Your task to perform on an android device: install app "Google News" Image 0: 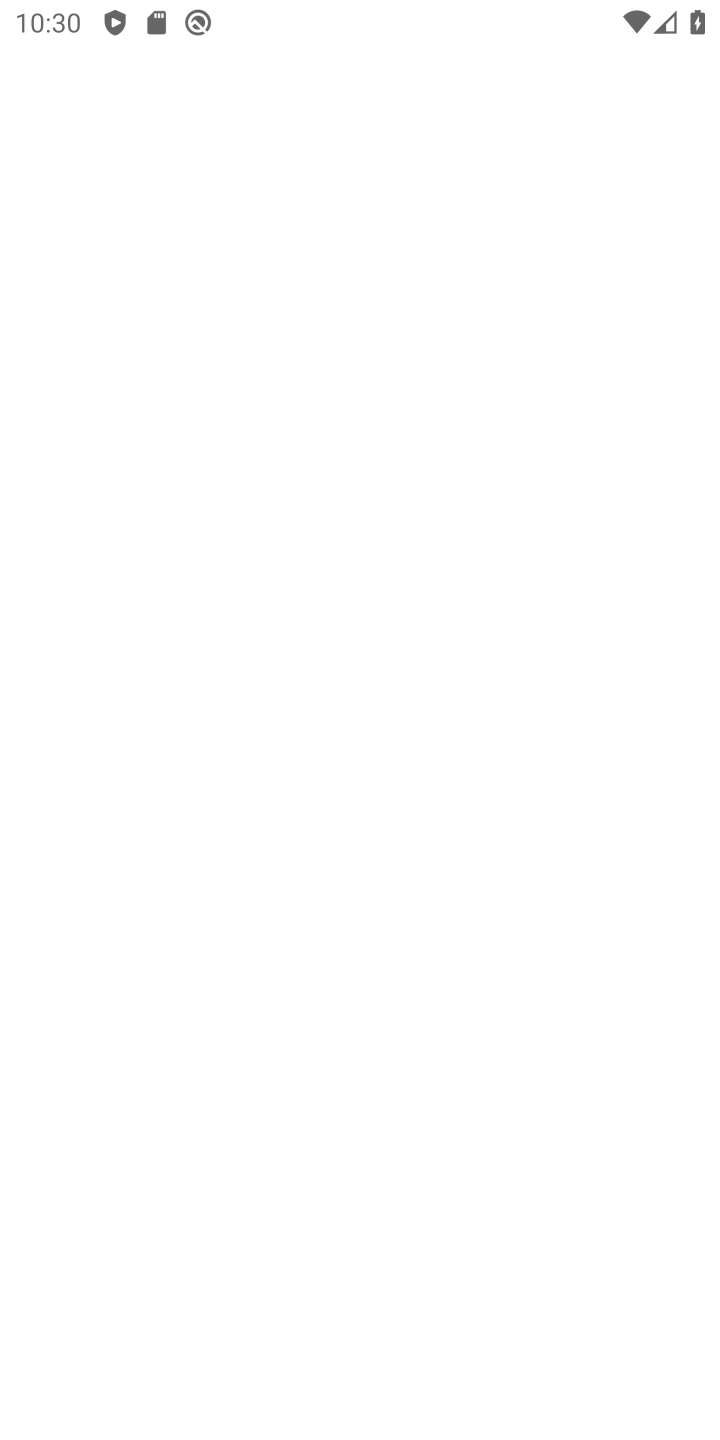
Step 0: press home button
Your task to perform on an android device: install app "Google News" Image 1: 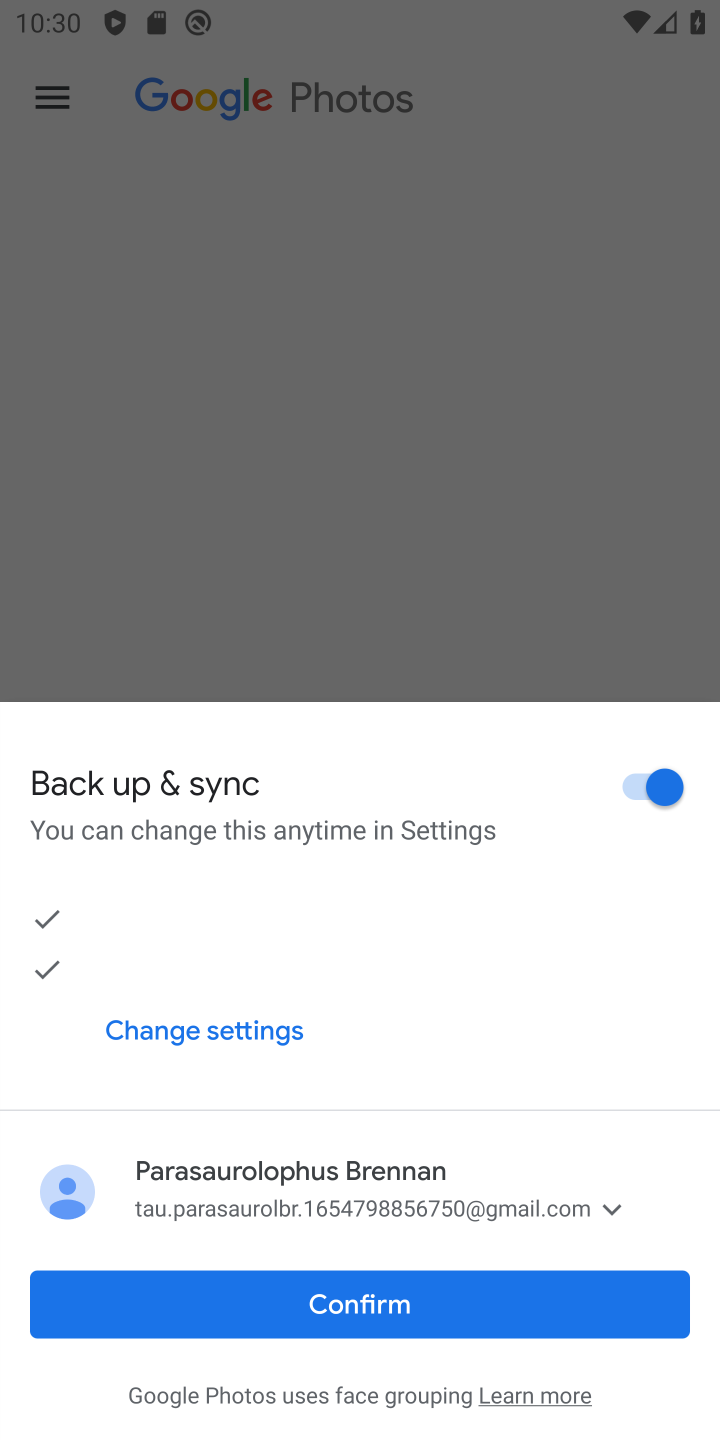
Step 1: press home button
Your task to perform on an android device: install app "Google News" Image 2: 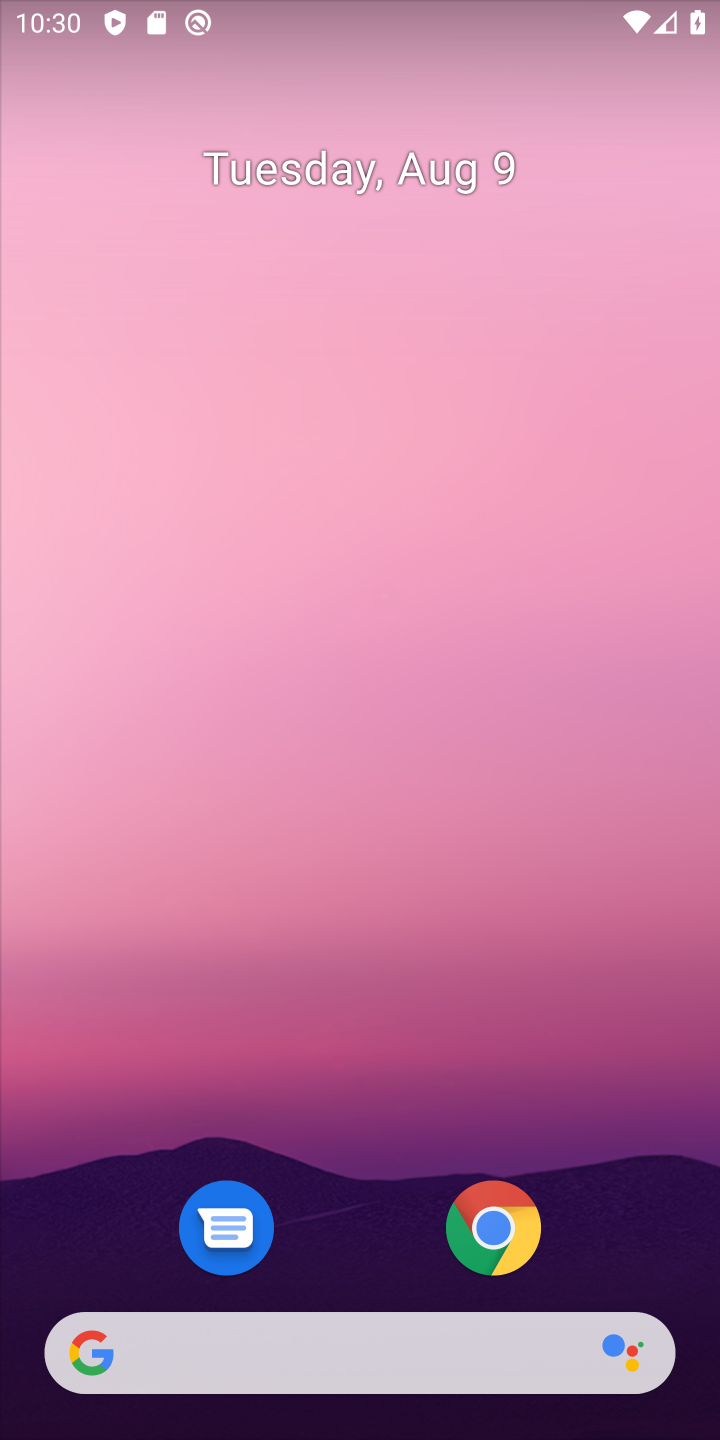
Step 2: drag from (377, 1279) to (426, 2)
Your task to perform on an android device: install app "Google News" Image 3: 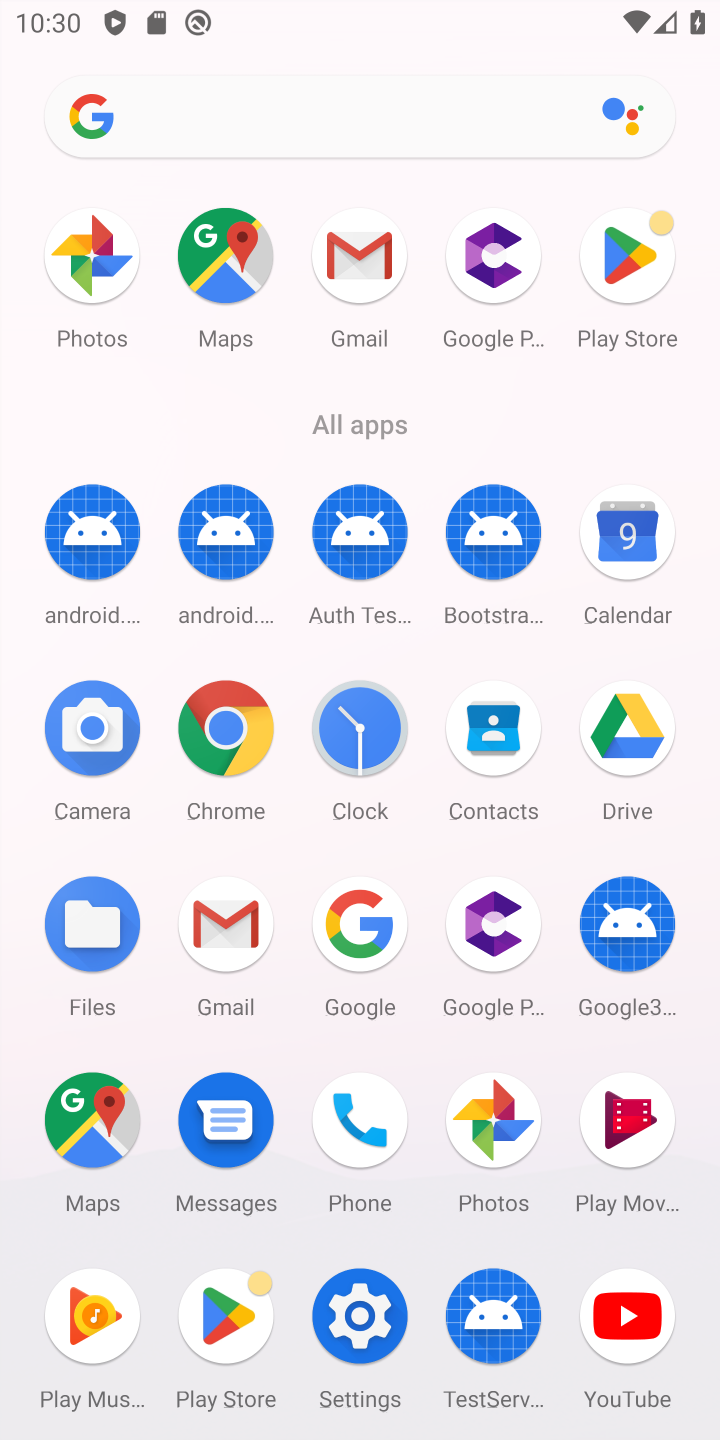
Step 3: click (629, 239)
Your task to perform on an android device: install app "Google News" Image 4: 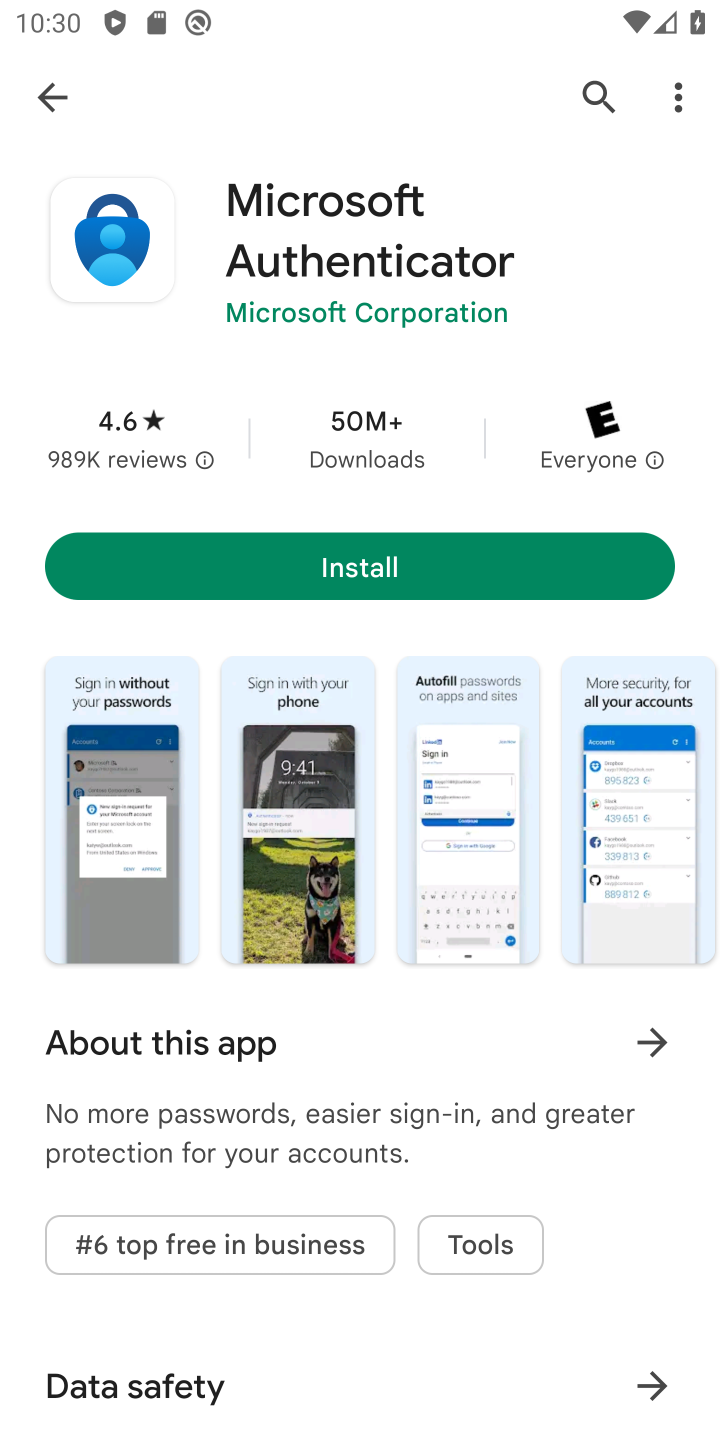
Step 4: click (588, 94)
Your task to perform on an android device: install app "Google News" Image 5: 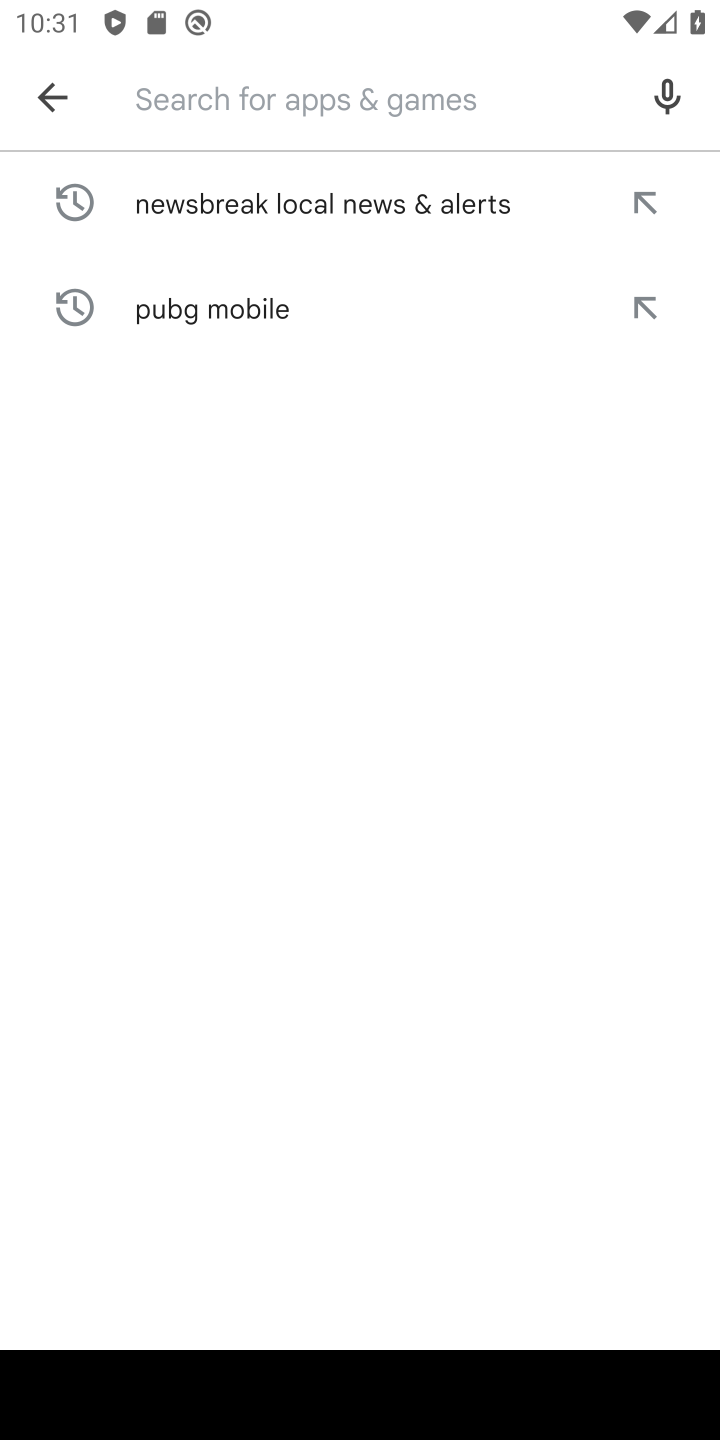
Step 5: type "google News"
Your task to perform on an android device: install app "Google News" Image 6: 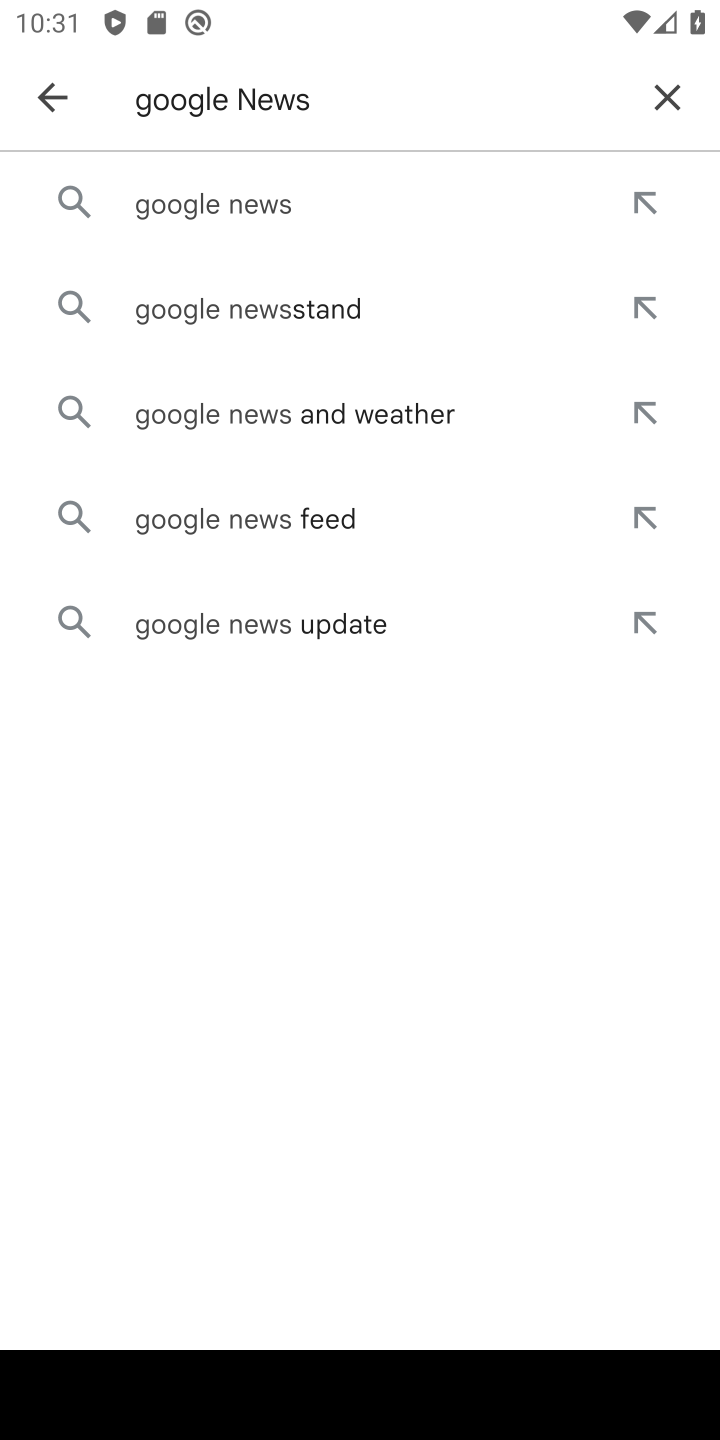
Step 6: click (194, 186)
Your task to perform on an android device: install app "Google News" Image 7: 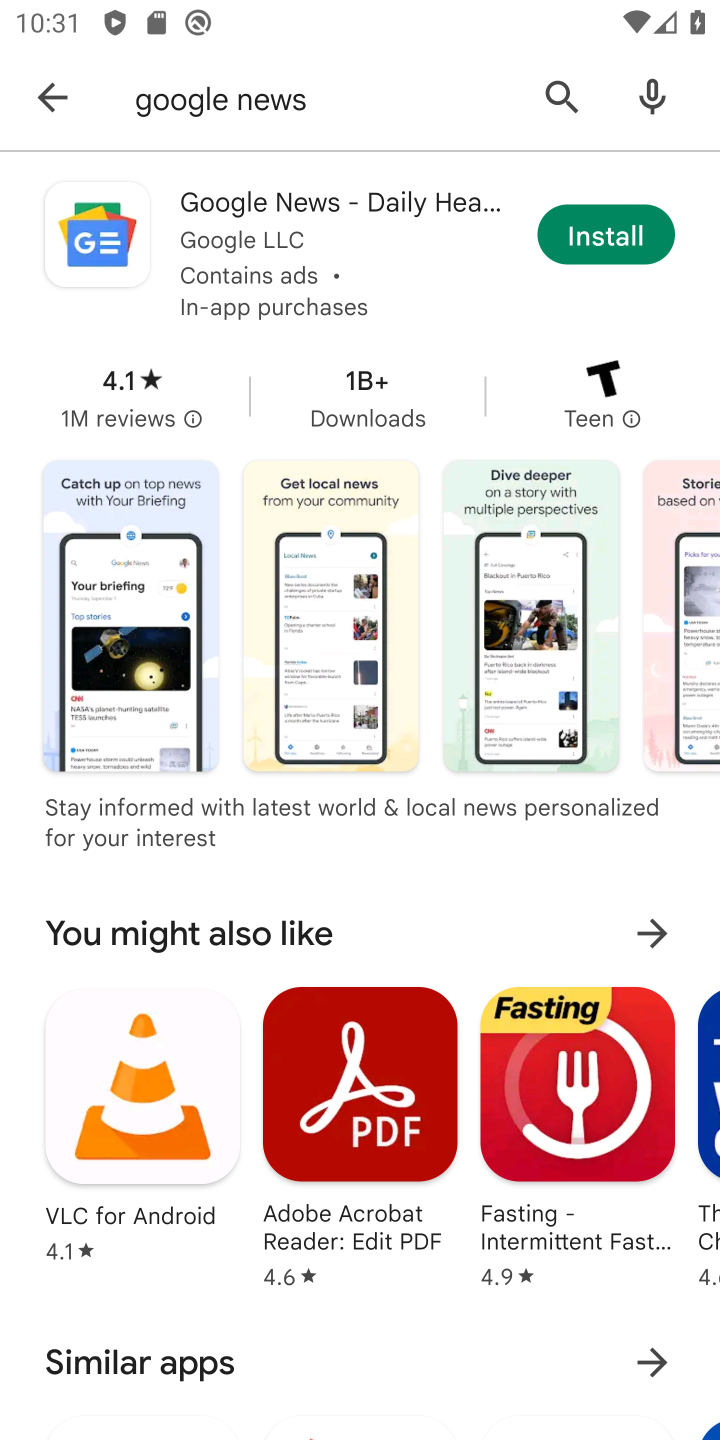
Step 7: click (629, 237)
Your task to perform on an android device: install app "Google News" Image 8: 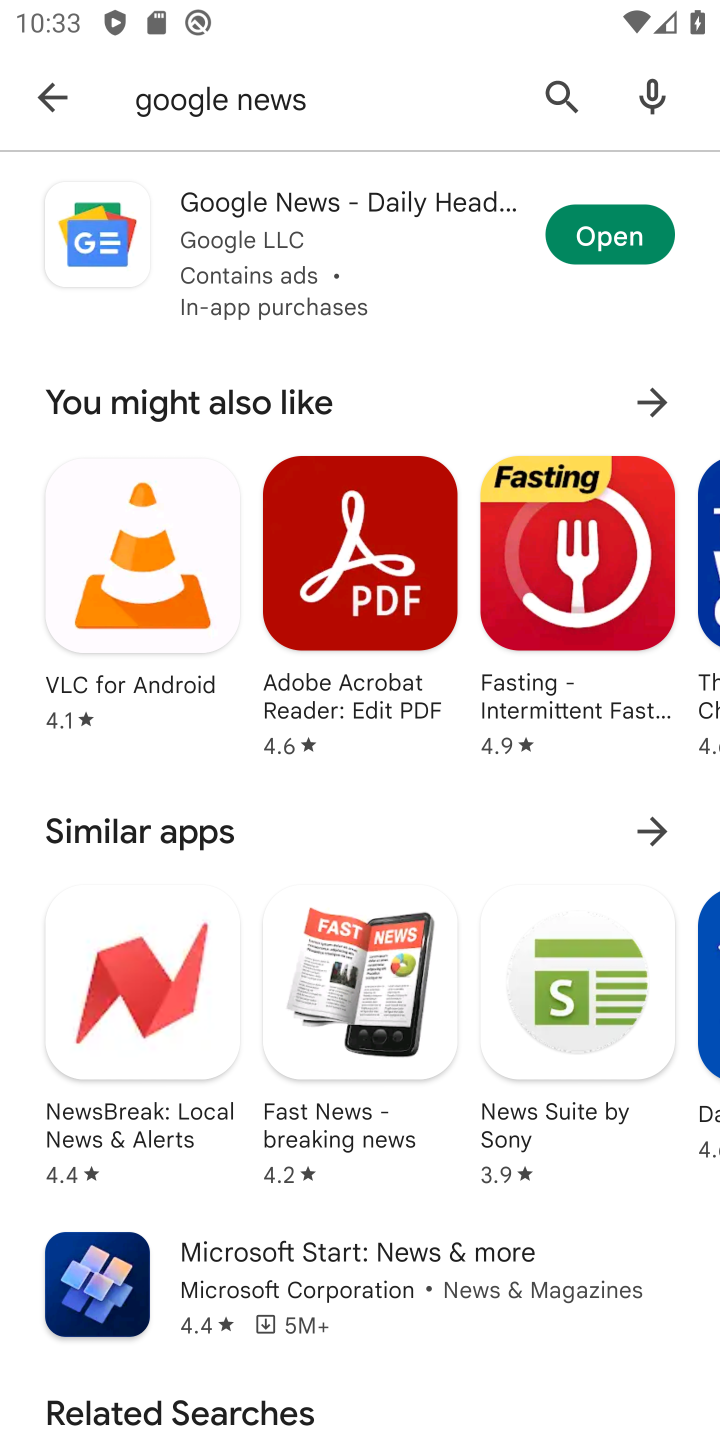
Step 8: task complete